Your task to perform on an android device: see creations saved in the google photos Image 0: 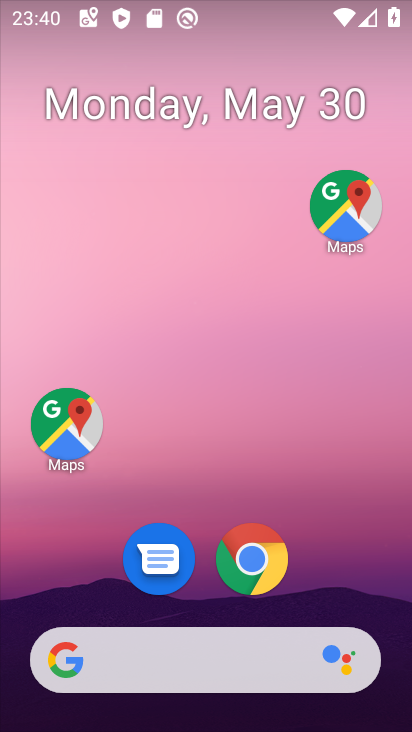
Step 0: drag from (340, 529) to (343, 164)
Your task to perform on an android device: see creations saved in the google photos Image 1: 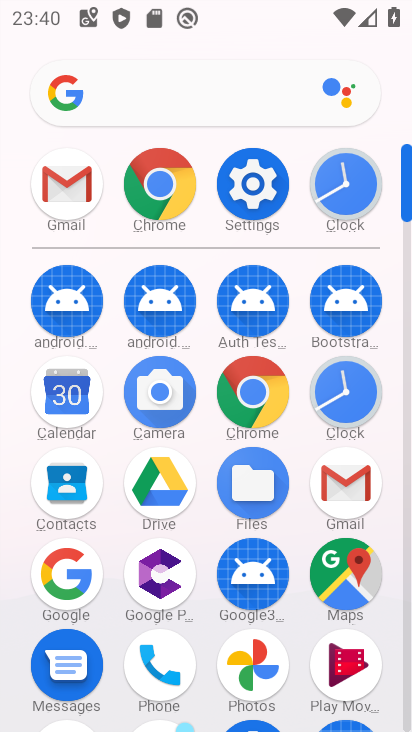
Step 1: click (245, 681)
Your task to perform on an android device: see creations saved in the google photos Image 2: 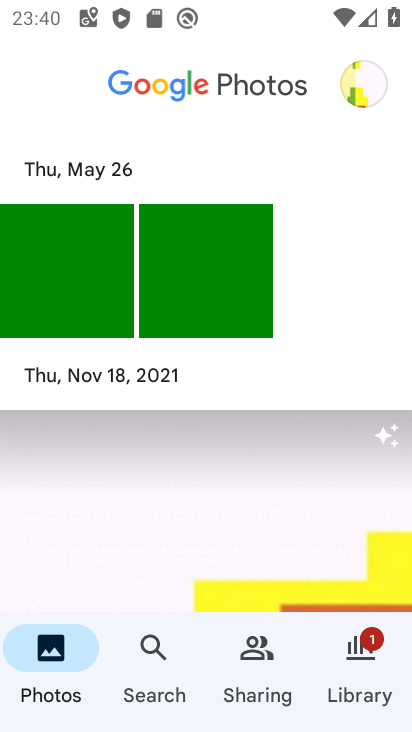
Step 2: click (368, 658)
Your task to perform on an android device: see creations saved in the google photos Image 3: 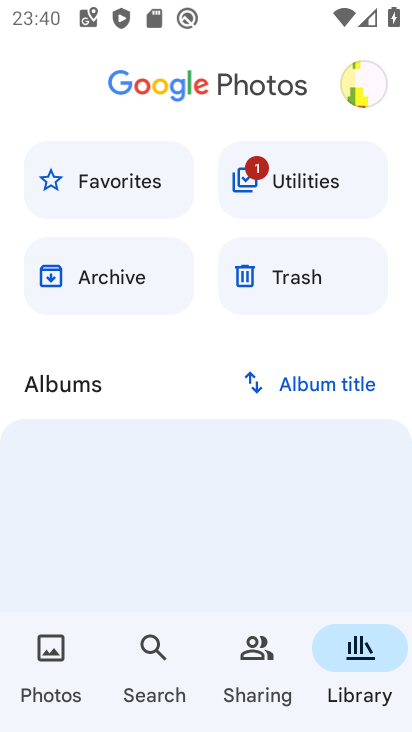
Step 3: click (305, 185)
Your task to perform on an android device: see creations saved in the google photos Image 4: 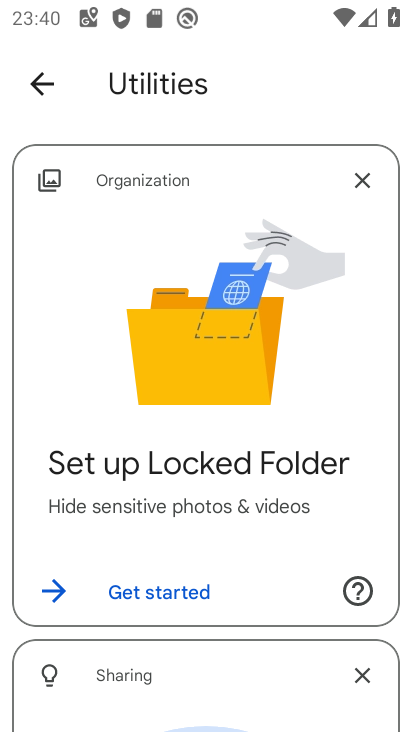
Step 4: task complete